Your task to perform on an android device: Turn on the flashlight Image 0: 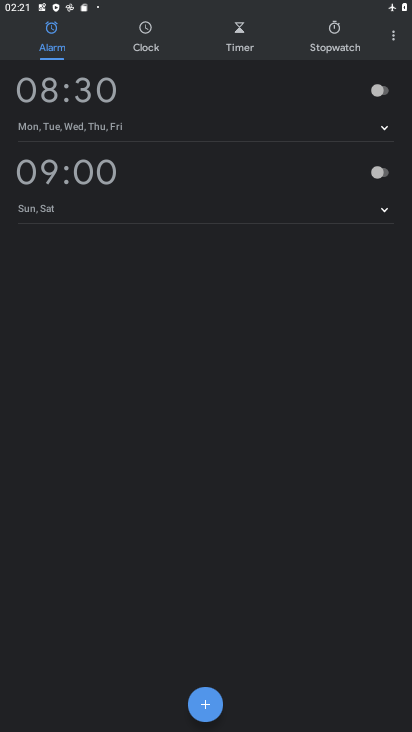
Step 0: press home button
Your task to perform on an android device: Turn on the flashlight Image 1: 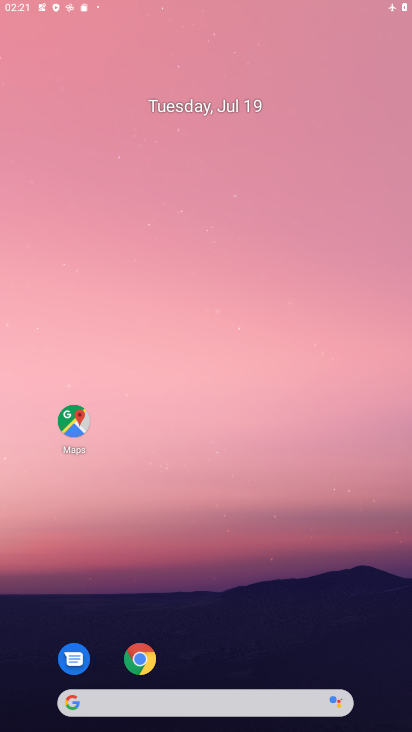
Step 1: task complete